Your task to perform on an android device: turn on data saver in the chrome app Image 0: 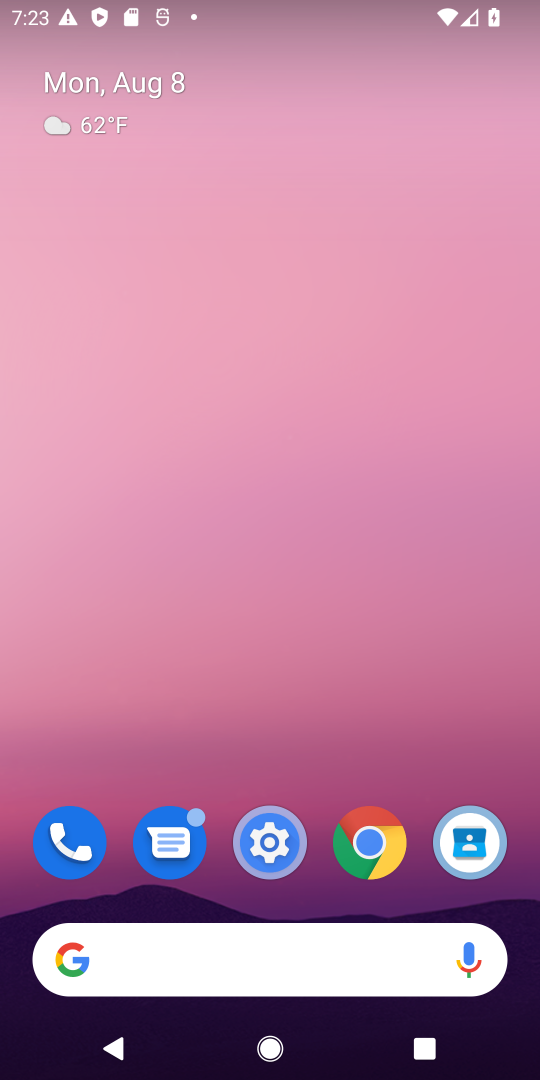
Step 0: click (374, 842)
Your task to perform on an android device: turn on data saver in the chrome app Image 1: 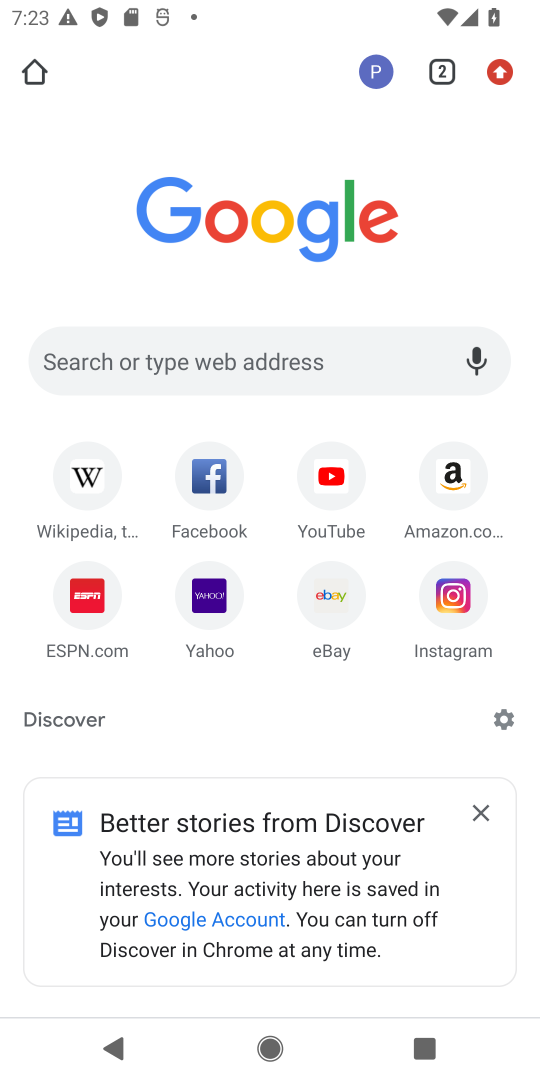
Step 1: click (497, 60)
Your task to perform on an android device: turn on data saver in the chrome app Image 2: 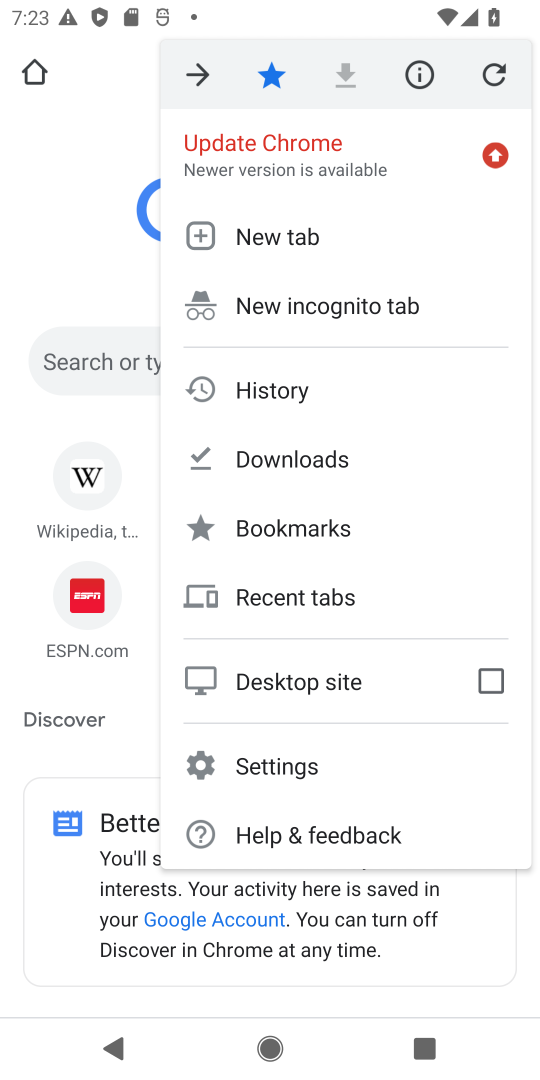
Step 2: click (304, 766)
Your task to perform on an android device: turn on data saver in the chrome app Image 3: 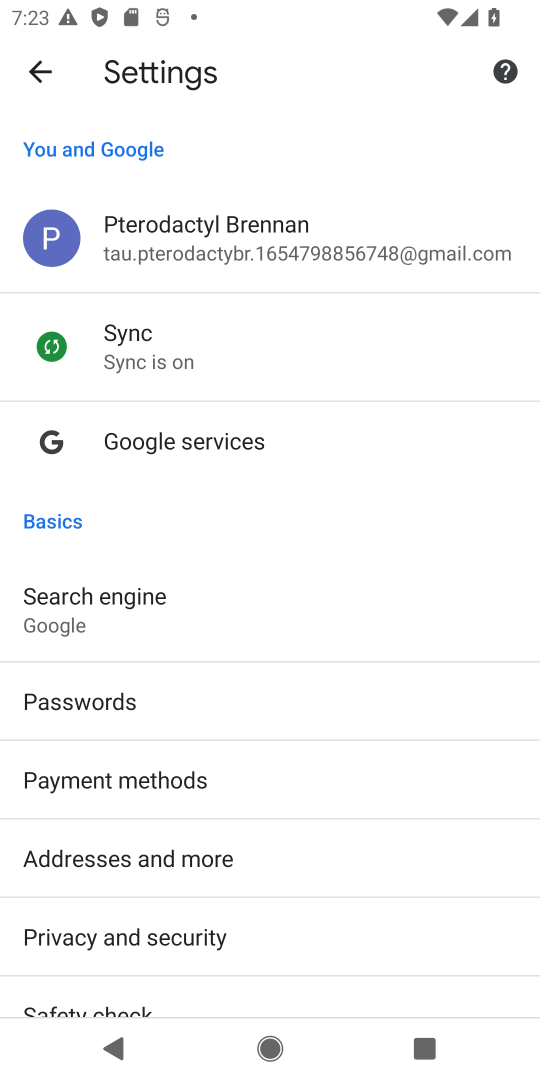
Step 3: drag from (345, 886) to (333, 446)
Your task to perform on an android device: turn on data saver in the chrome app Image 4: 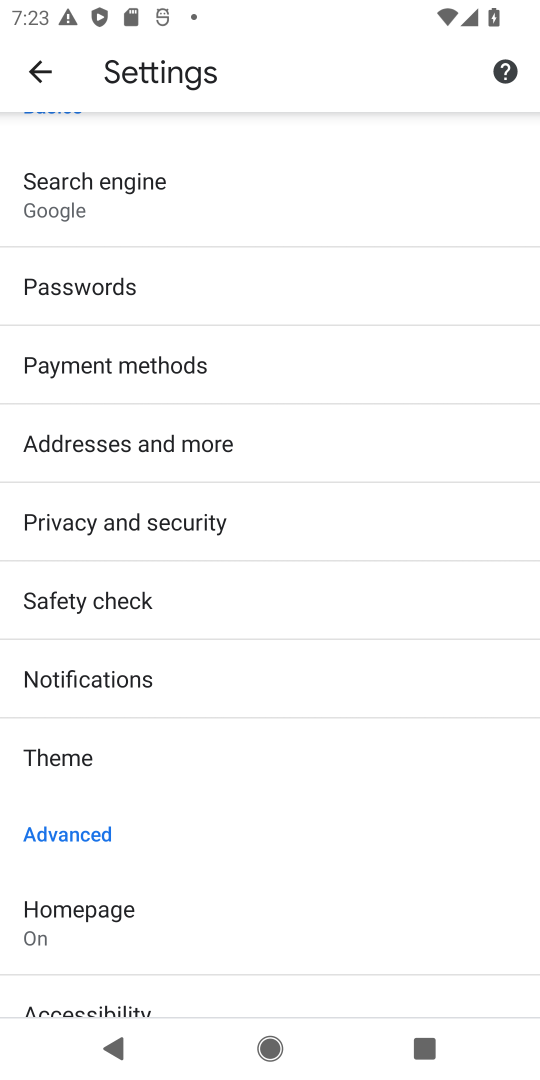
Step 4: drag from (309, 720) to (356, 268)
Your task to perform on an android device: turn on data saver in the chrome app Image 5: 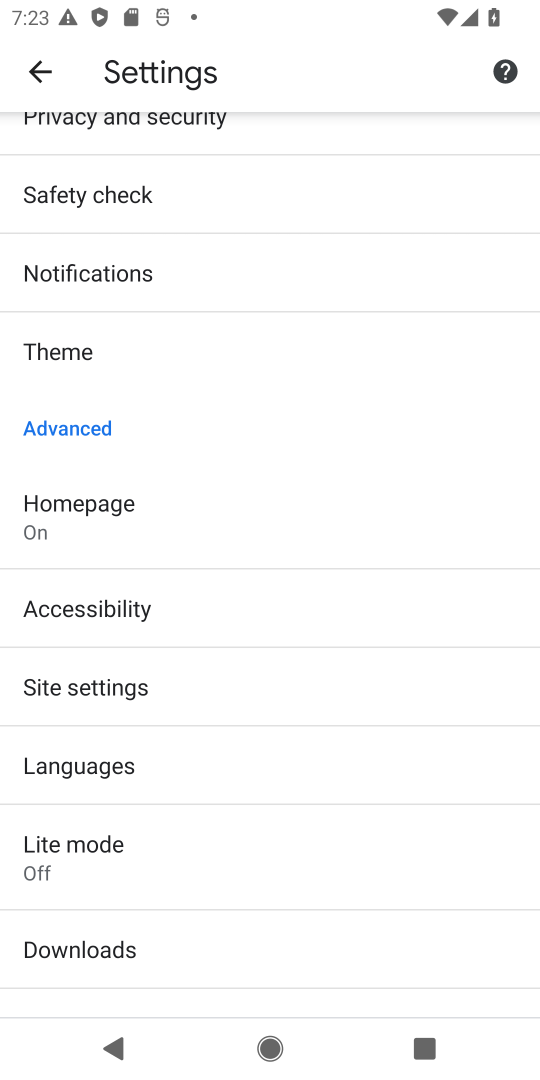
Step 5: click (262, 885)
Your task to perform on an android device: turn on data saver in the chrome app Image 6: 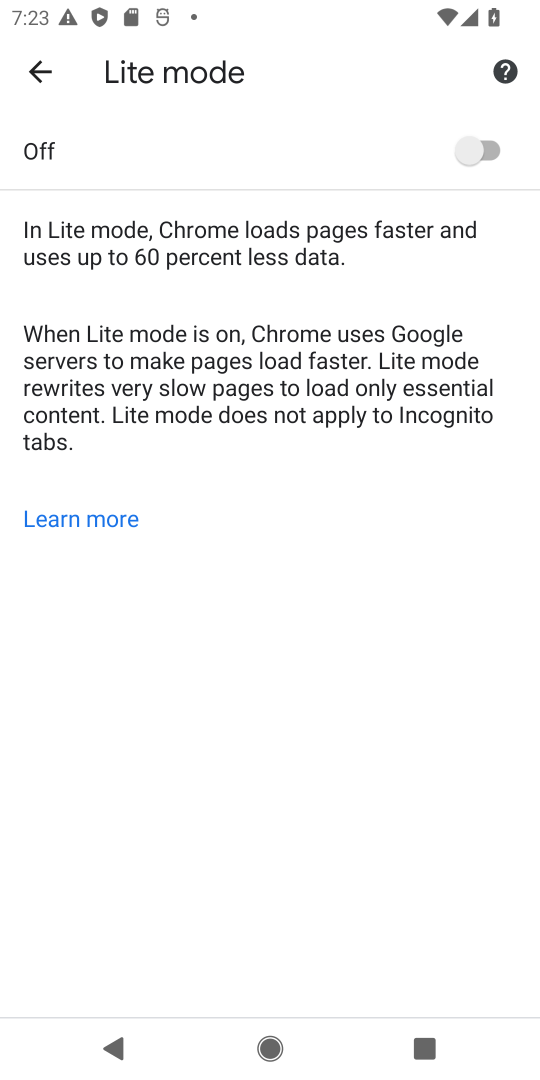
Step 6: click (474, 144)
Your task to perform on an android device: turn on data saver in the chrome app Image 7: 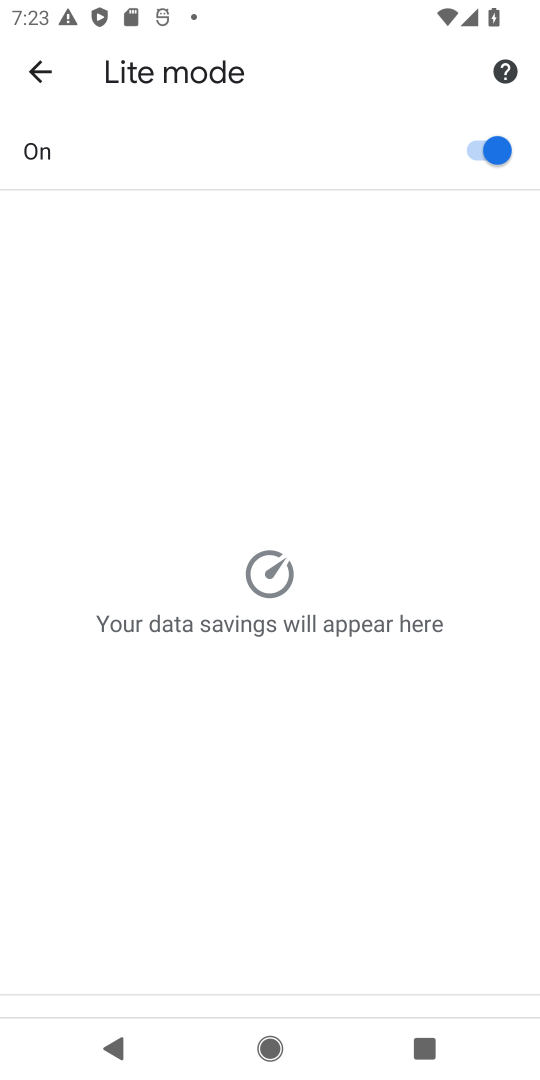
Step 7: task complete